Your task to perform on an android device: turn off data saver in the chrome app Image 0: 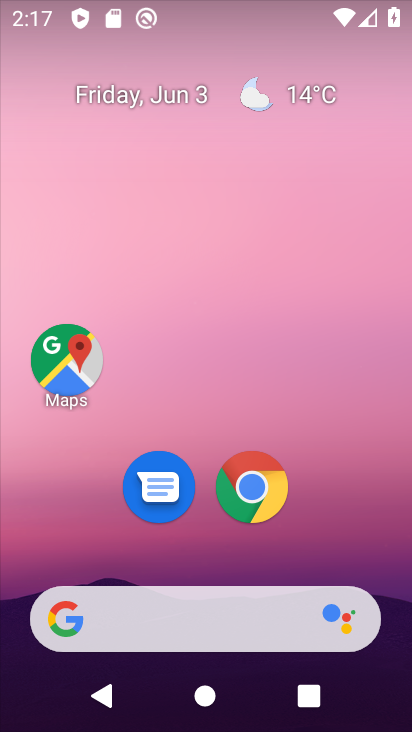
Step 0: drag from (177, 545) to (286, 126)
Your task to perform on an android device: turn off data saver in the chrome app Image 1: 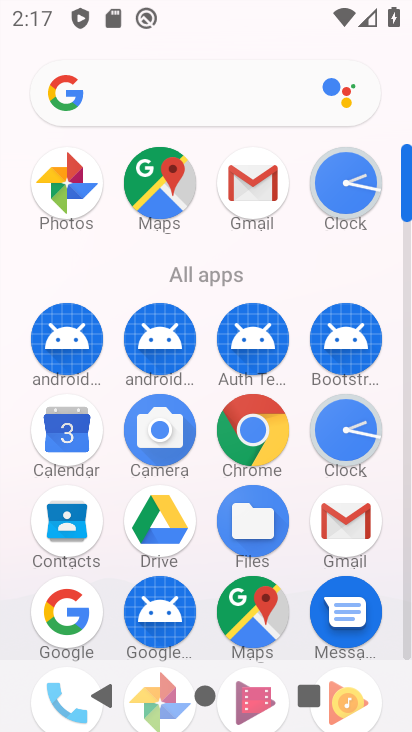
Step 1: drag from (174, 529) to (263, 308)
Your task to perform on an android device: turn off data saver in the chrome app Image 2: 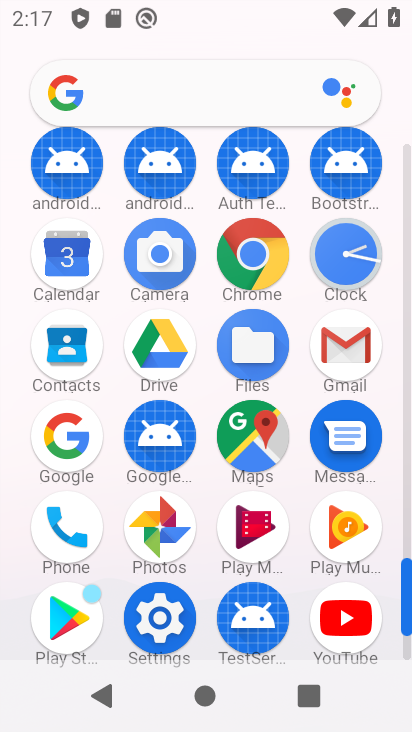
Step 2: click (261, 270)
Your task to perform on an android device: turn off data saver in the chrome app Image 3: 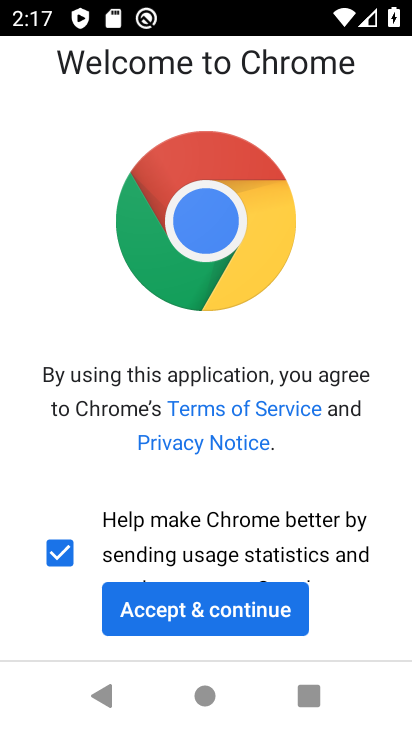
Step 3: click (194, 611)
Your task to perform on an android device: turn off data saver in the chrome app Image 4: 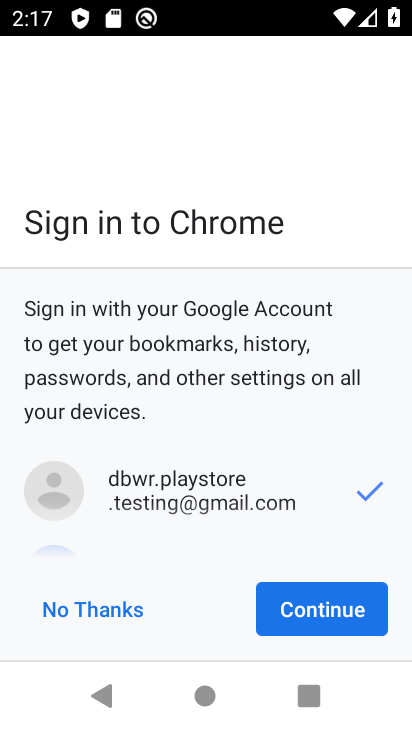
Step 4: click (362, 608)
Your task to perform on an android device: turn off data saver in the chrome app Image 5: 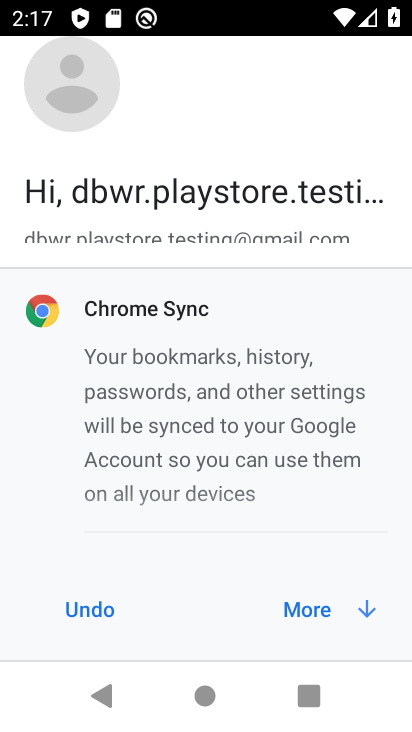
Step 5: click (358, 608)
Your task to perform on an android device: turn off data saver in the chrome app Image 6: 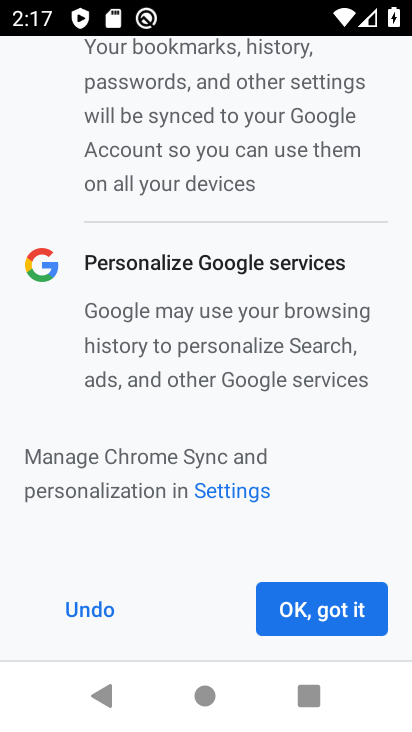
Step 6: click (358, 608)
Your task to perform on an android device: turn off data saver in the chrome app Image 7: 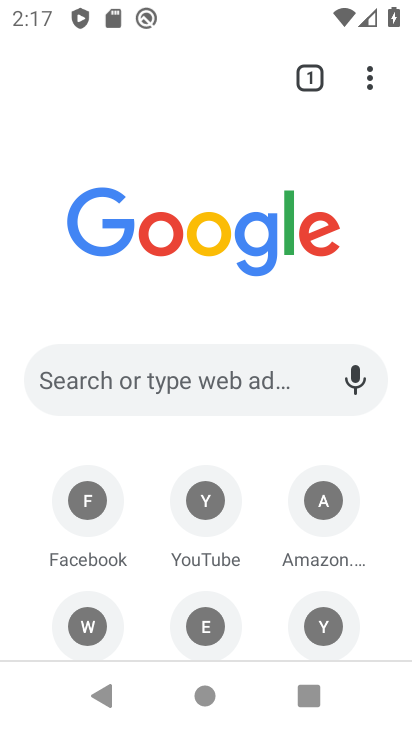
Step 7: drag from (383, 89) to (242, 558)
Your task to perform on an android device: turn off data saver in the chrome app Image 8: 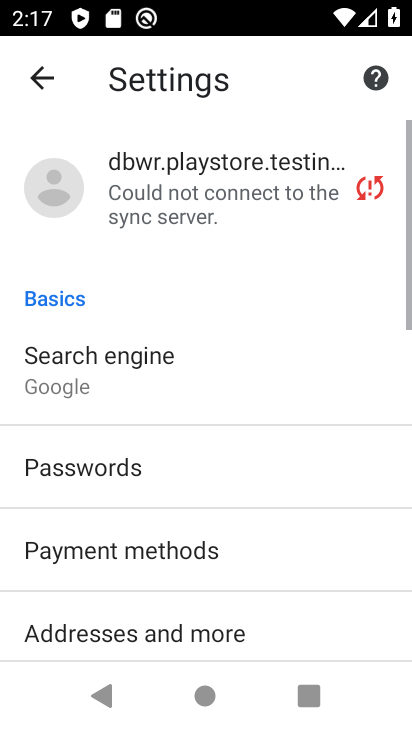
Step 8: drag from (92, 624) to (215, 236)
Your task to perform on an android device: turn off data saver in the chrome app Image 9: 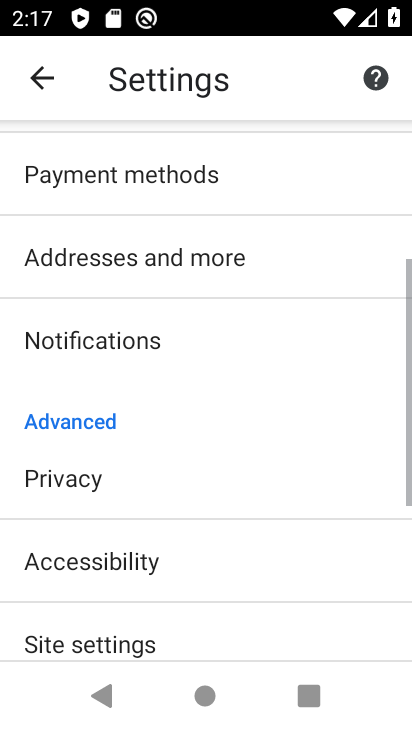
Step 9: drag from (173, 551) to (207, 425)
Your task to perform on an android device: turn off data saver in the chrome app Image 10: 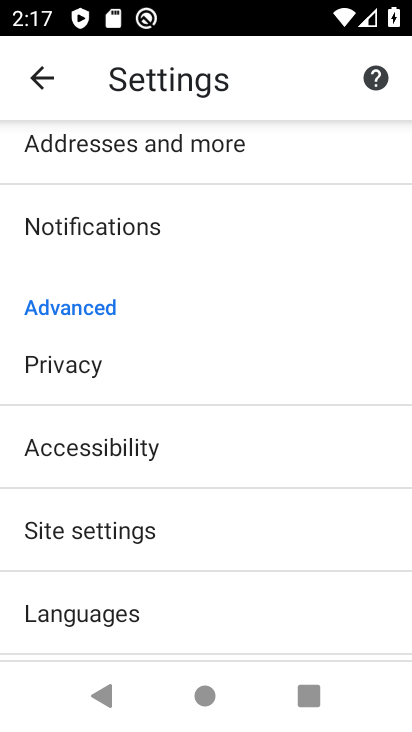
Step 10: drag from (146, 625) to (215, 355)
Your task to perform on an android device: turn off data saver in the chrome app Image 11: 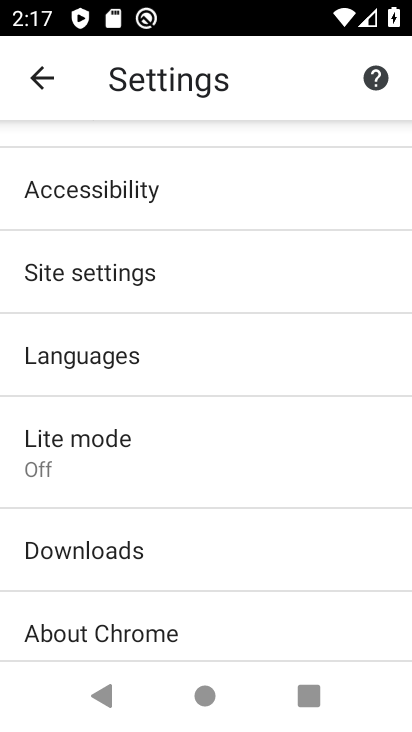
Step 11: click (118, 456)
Your task to perform on an android device: turn off data saver in the chrome app Image 12: 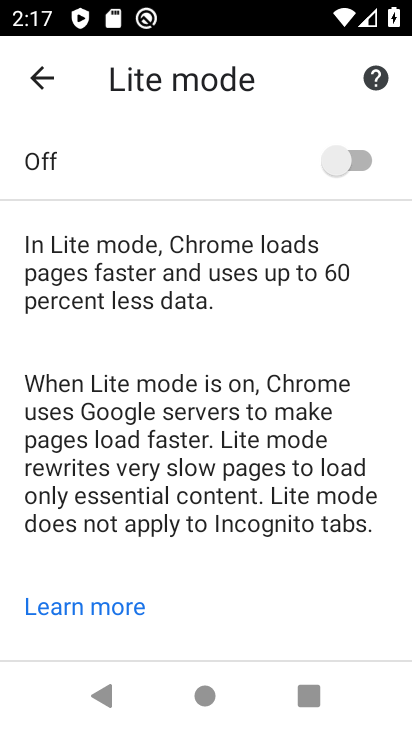
Step 12: task complete